Your task to perform on an android device: move a message to another label in the gmail app Image 0: 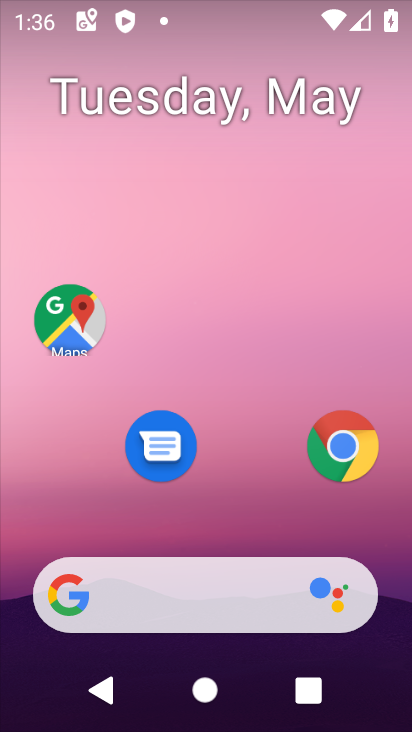
Step 0: drag from (183, 528) to (189, 16)
Your task to perform on an android device: move a message to another label in the gmail app Image 1: 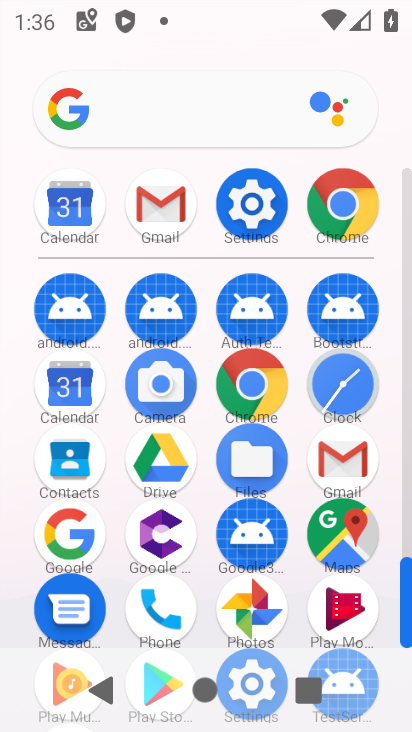
Step 1: click (355, 473)
Your task to perform on an android device: move a message to another label in the gmail app Image 2: 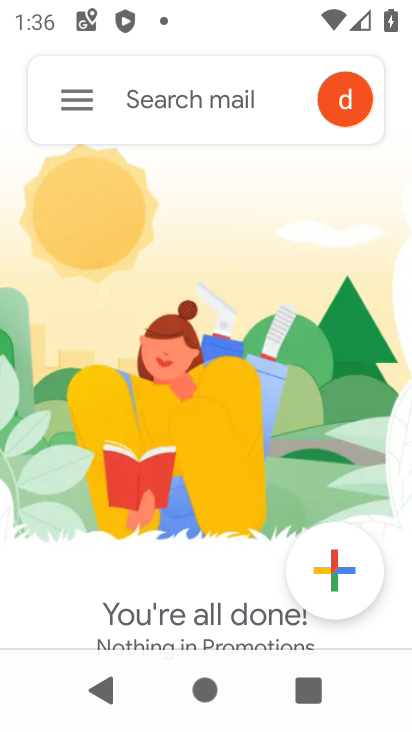
Step 2: click (65, 101)
Your task to perform on an android device: move a message to another label in the gmail app Image 3: 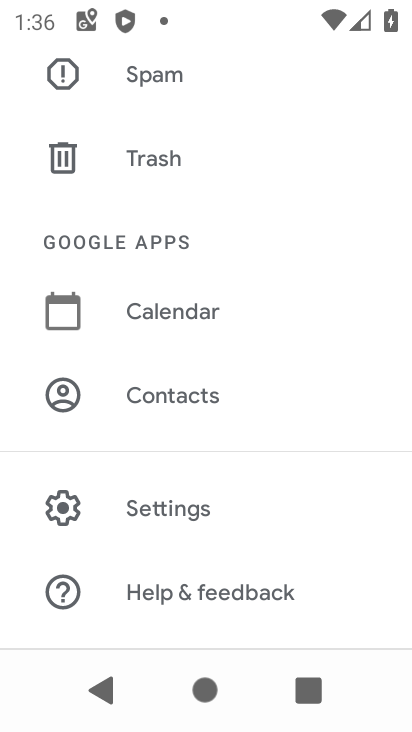
Step 3: task complete